Your task to perform on an android device: visit the assistant section in the google photos Image 0: 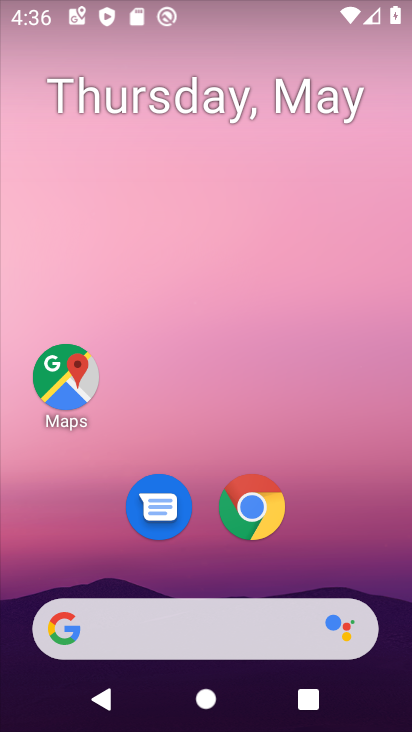
Step 0: drag from (388, 644) to (169, 90)
Your task to perform on an android device: visit the assistant section in the google photos Image 1: 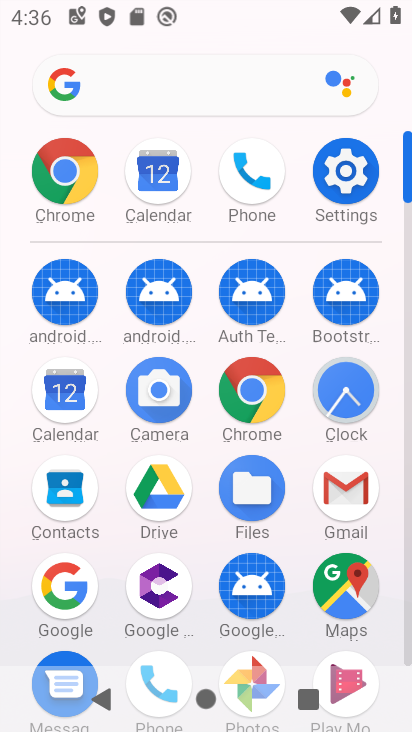
Step 1: drag from (269, 561) to (225, 174)
Your task to perform on an android device: visit the assistant section in the google photos Image 2: 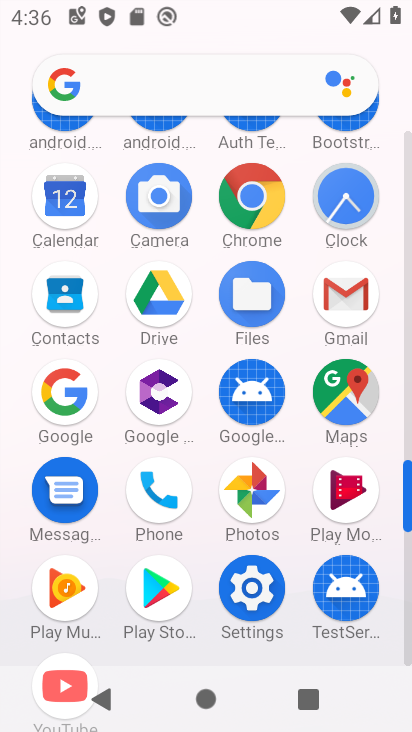
Step 2: click (250, 505)
Your task to perform on an android device: visit the assistant section in the google photos Image 3: 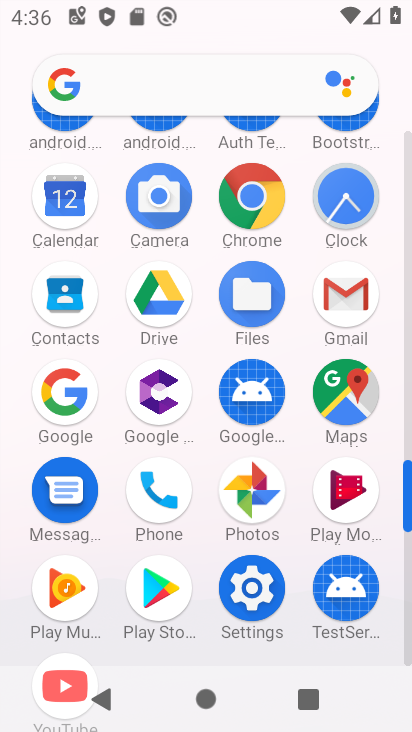
Step 3: click (247, 492)
Your task to perform on an android device: visit the assistant section in the google photos Image 4: 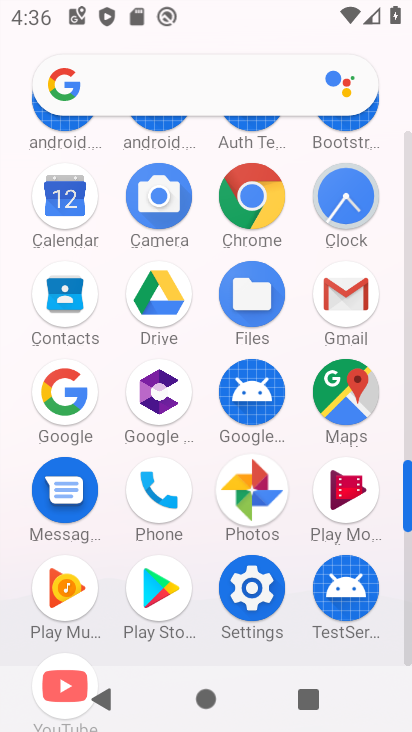
Step 4: click (249, 489)
Your task to perform on an android device: visit the assistant section in the google photos Image 5: 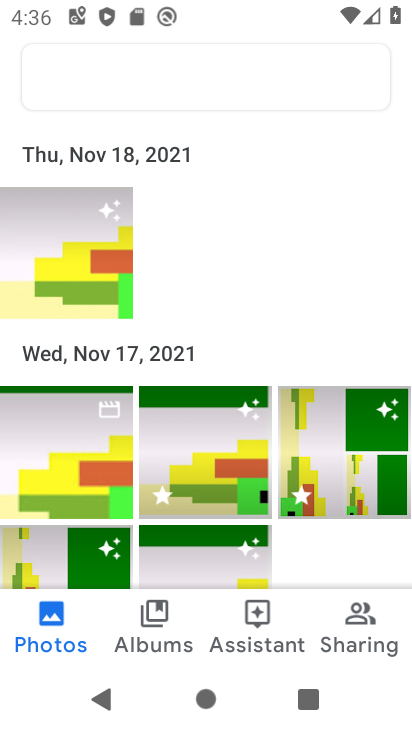
Step 5: click (250, 491)
Your task to perform on an android device: visit the assistant section in the google photos Image 6: 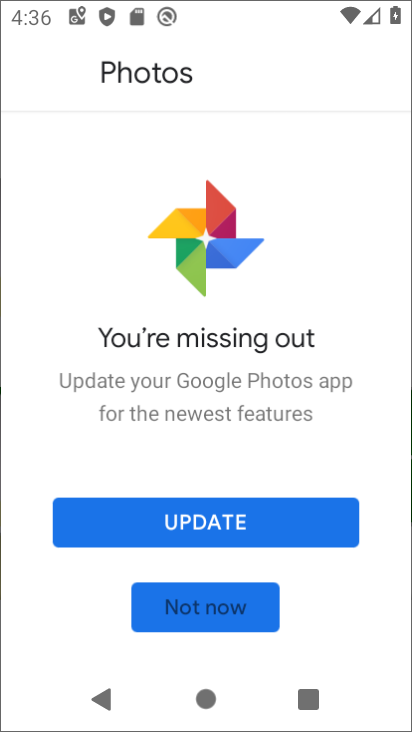
Step 6: click (236, 485)
Your task to perform on an android device: visit the assistant section in the google photos Image 7: 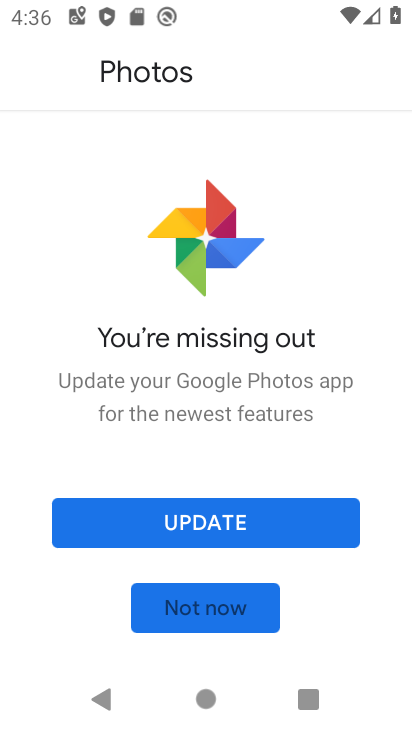
Step 7: task complete